Your task to perform on an android device: open app "Yahoo Mail" Image 0: 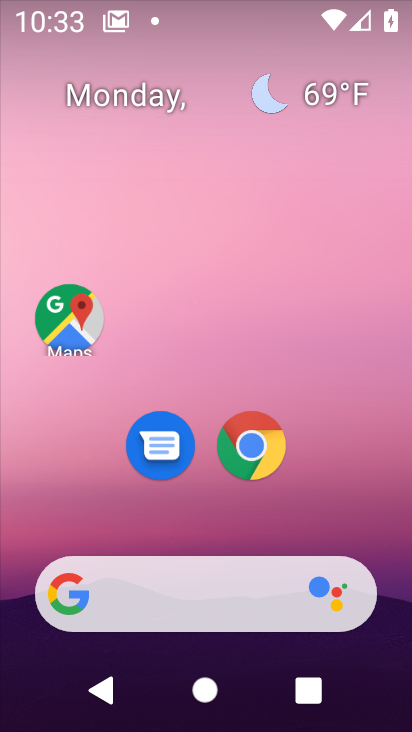
Step 0: drag from (187, 447) to (204, 204)
Your task to perform on an android device: open app "Yahoo Mail" Image 1: 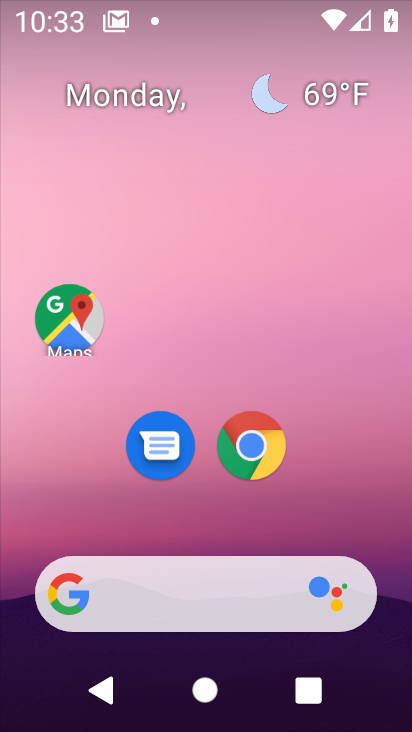
Step 1: drag from (163, 601) to (204, 103)
Your task to perform on an android device: open app "Yahoo Mail" Image 2: 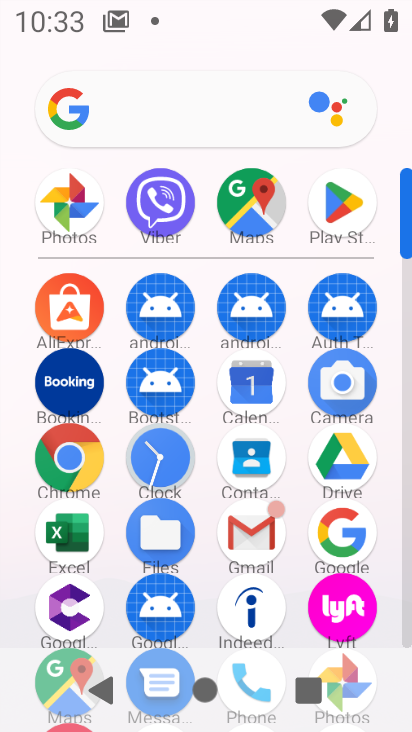
Step 2: click (342, 226)
Your task to perform on an android device: open app "Yahoo Mail" Image 3: 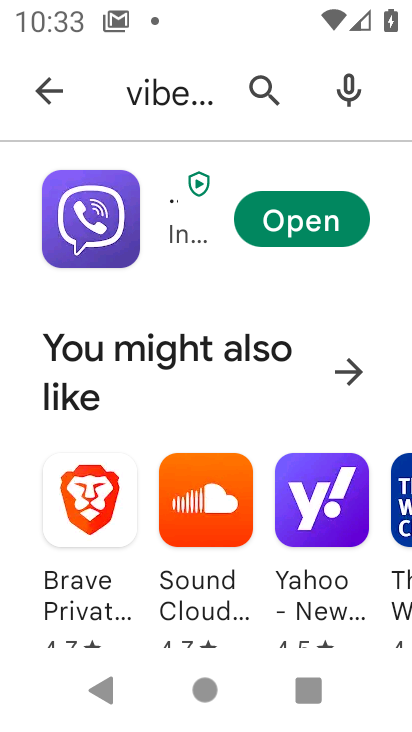
Step 3: click (52, 97)
Your task to perform on an android device: open app "Yahoo Mail" Image 4: 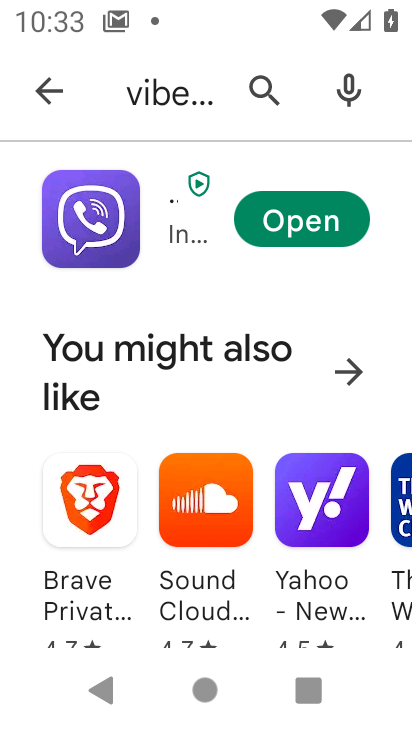
Step 4: click (42, 90)
Your task to perform on an android device: open app "Yahoo Mail" Image 5: 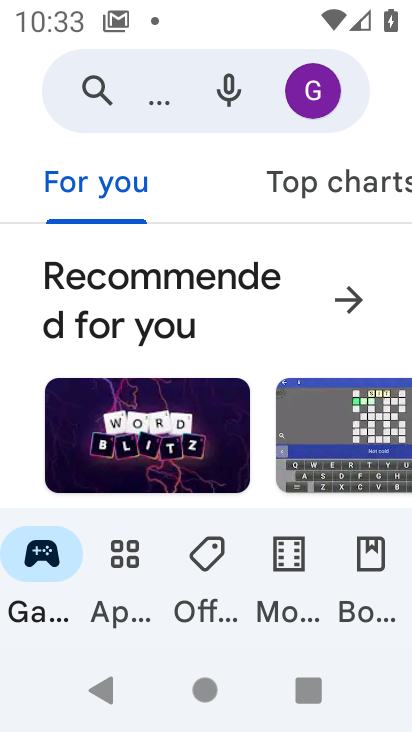
Step 5: click (80, 94)
Your task to perform on an android device: open app "Yahoo Mail" Image 6: 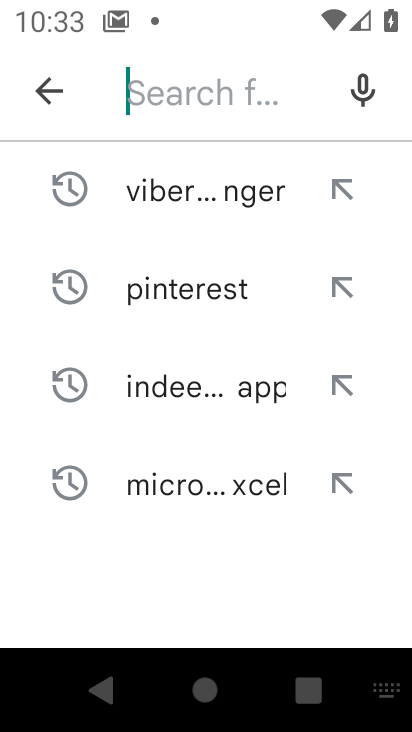
Step 6: type "Yahoo Mail"
Your task to perform on an android device: open app "Yahoo Mail" Image 7: 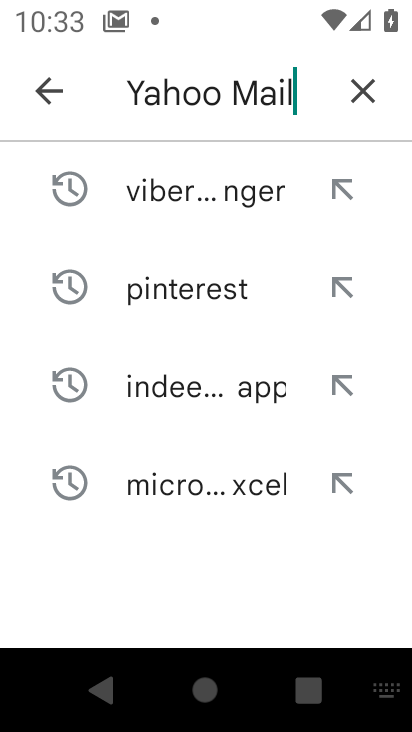
Step 7: type ""
Your task to perform on an android device: open app "Yahoo Mail" Image 8: 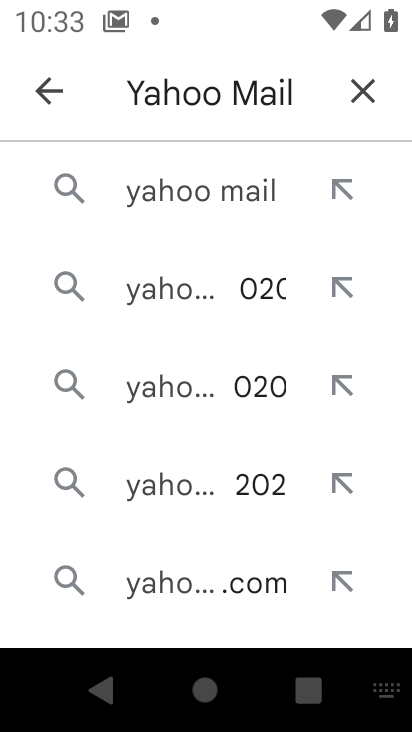
Step 8: click (232, 181)
Your task to perform on an android device: open app "Yahoo Mail" Image 9: 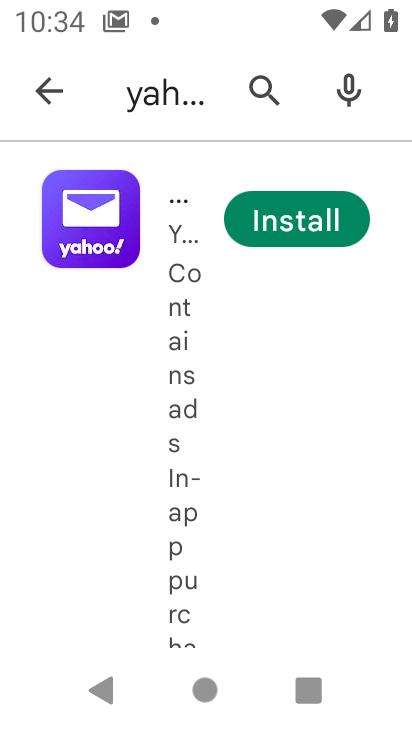
Step 9: task complete